Your task to perform on an android device: Open calendar and show me the fourth week of next month Image 0: 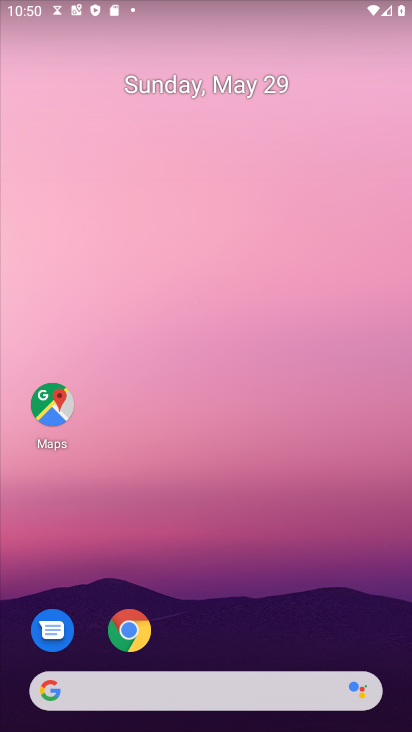
Step 0: drag from (259, 581) to (246, 206)
Your task to perform on an android device: Open calendar and show me the fourth week of next month Image 1: 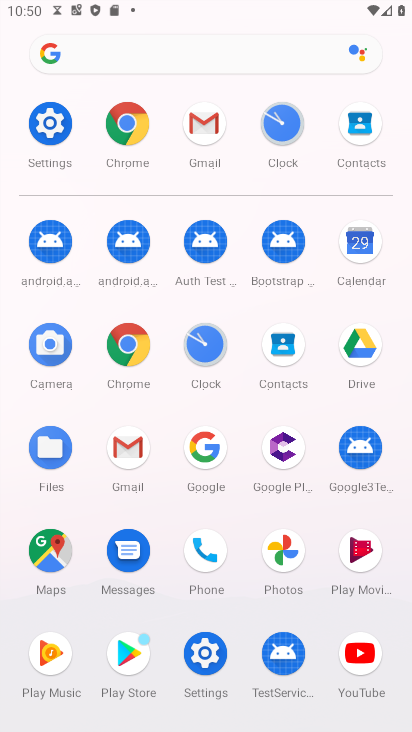
Step 1: click (364, 248)
Your task to perform on an android device: Open calendar and show me the fourth week of next month Image 2: 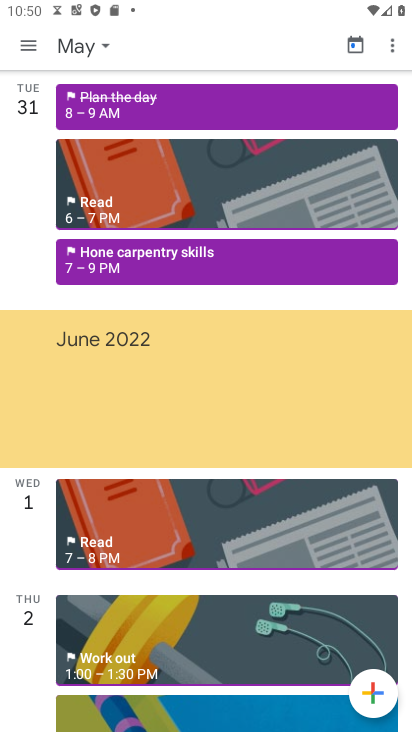
Step 2: click (36, 35)
Your task to perform on an android device: Open calendar and show me the fourth week of next month Image 3: 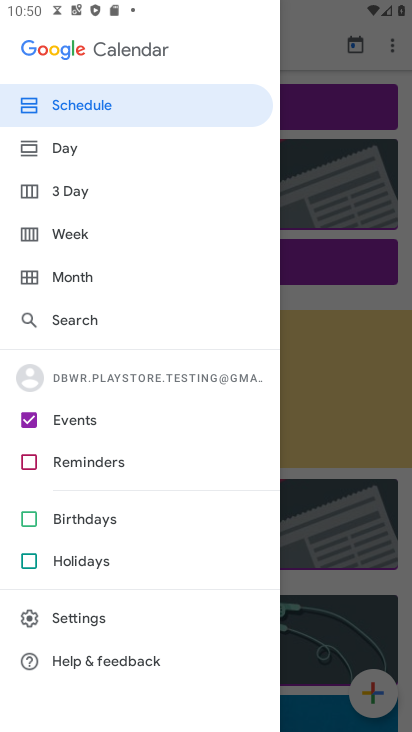
Step 3: click (88, 270)
Your task to perform on an android device: Open calendar and show me the fourth week of next month Image 4: 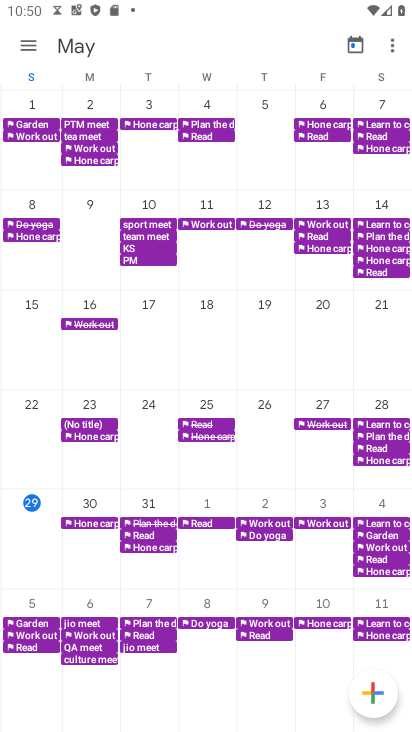
Step 4: drag from (70, 430) to (57, 130)
Your task to perform on an android device: Open calendar and show me the fourth week of next month Image 5: 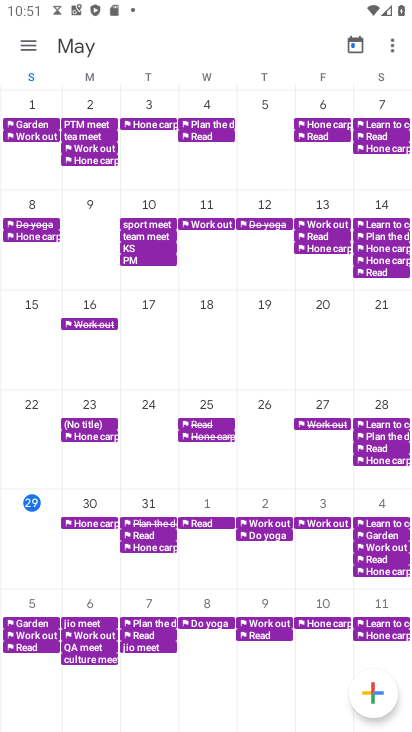
Step 5: drag from (220, 538) to (229, 173)
Your task to perform on an android device: Open calendar and show me the fourth week of next month Image 6: 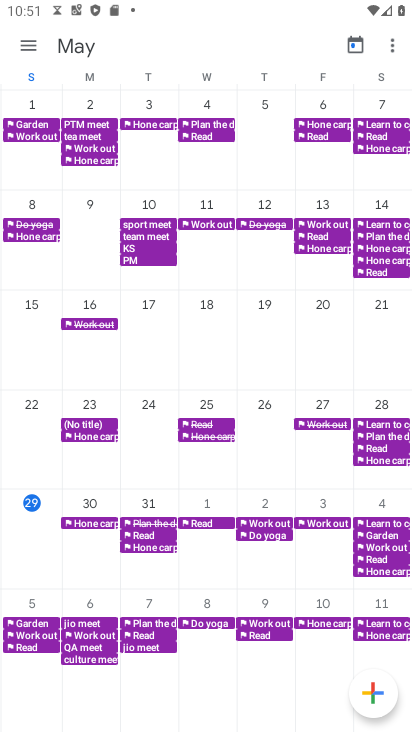
Step 6: click (19, 40)
Your task to perform on an android device: Open calendar and show me the fourth week of next month Image 7: 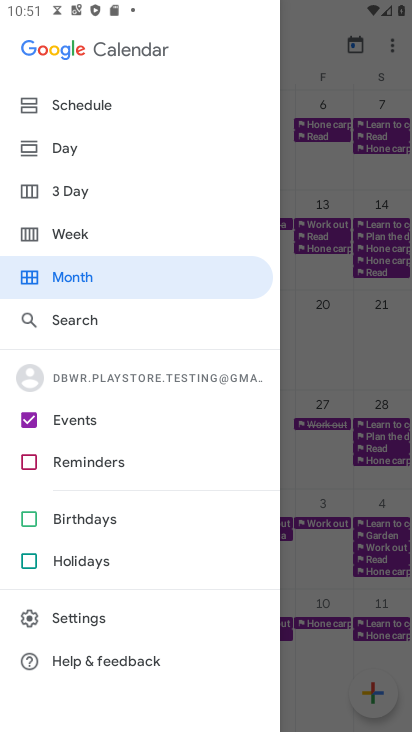
Step 7: click (126, 235)
Your task to perform on an android device: Open calendar and show me the fourth week of next month Image 8: 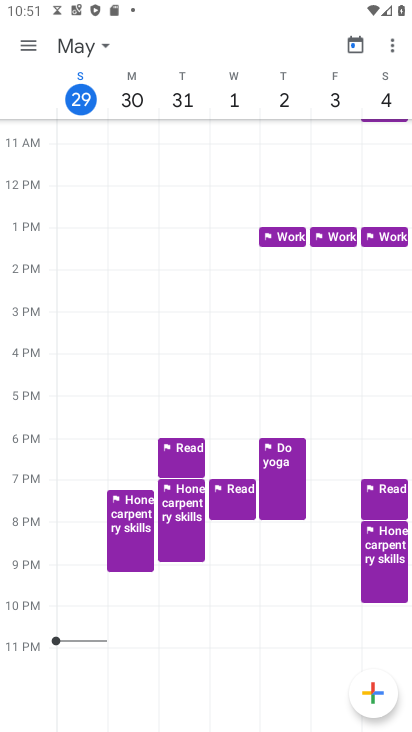
Step 8: task complete